Your task to perform on an android device: Go to eBay Image 0: 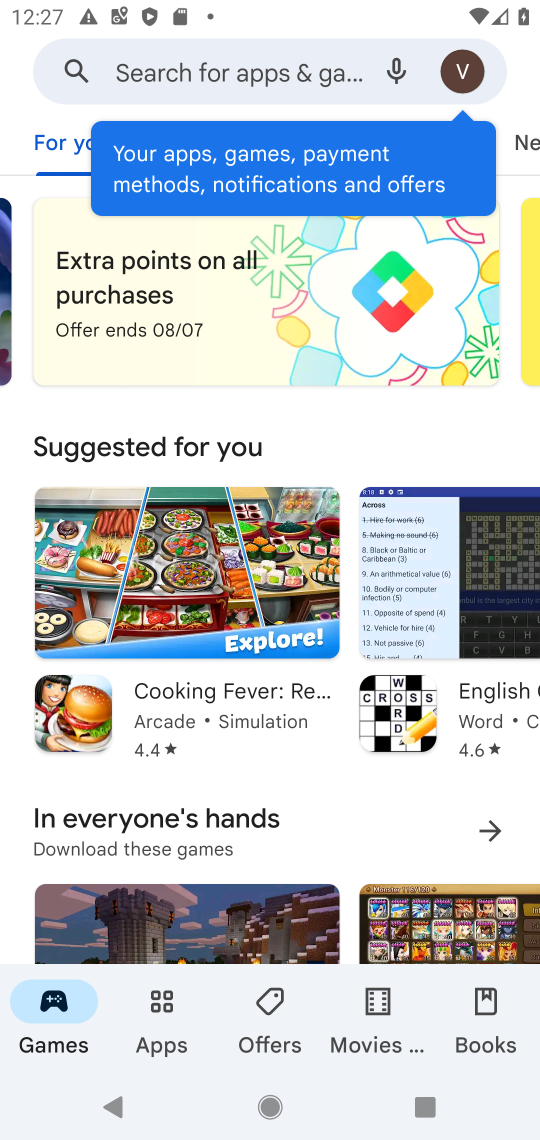
Step 0: press home button
Your task to perform on an android device: Go to eBay Image 1: 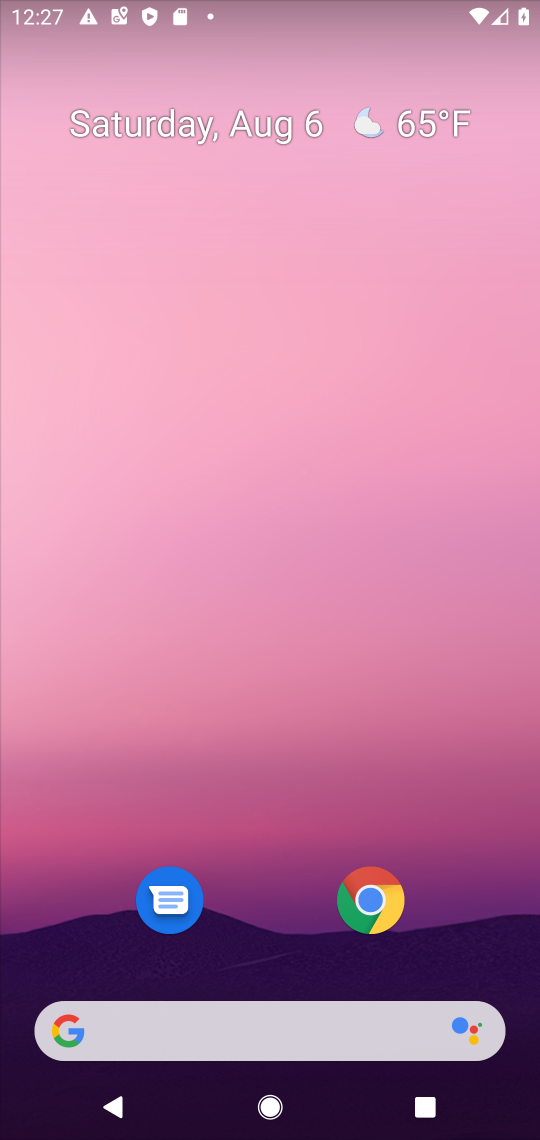
Step 1: click (365, 901)
Your task to perform on an android device: Go to eBay Image 2: 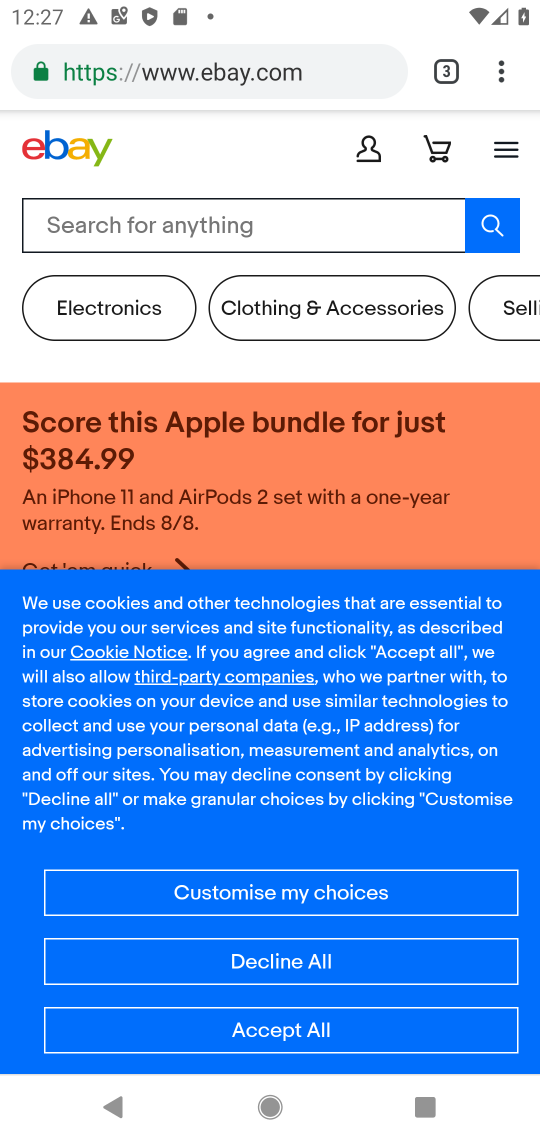
Step 2: task complete